Your task to perform on an android device: turn off location history Image 0: 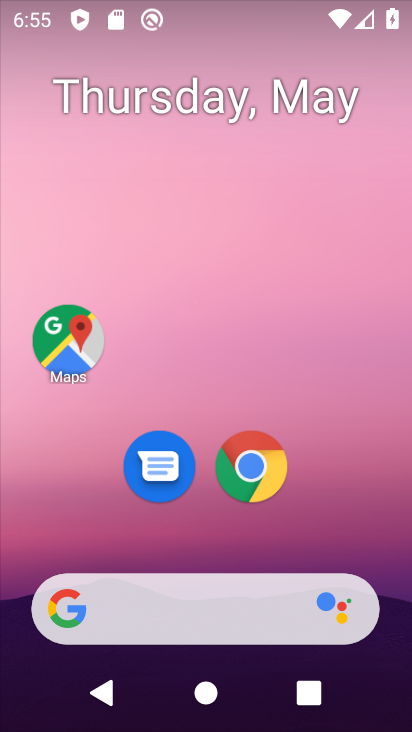
Step 0: click (84, 360)
Your task to perform on an android device: turn off location history Image 1: 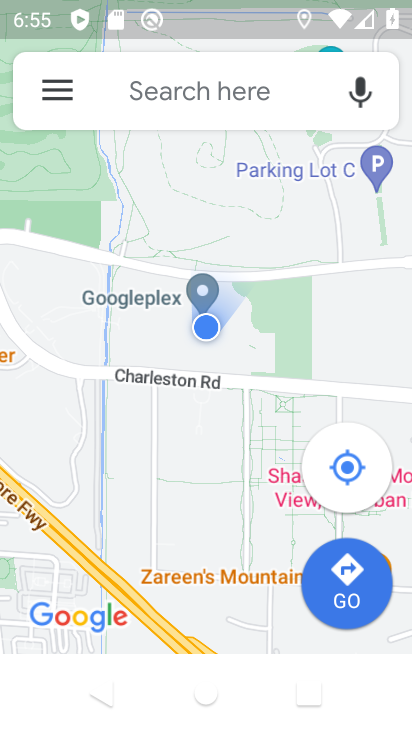
Step 1: click (53, 92)
Your task to perform on an android device: turn off location history Image 2: 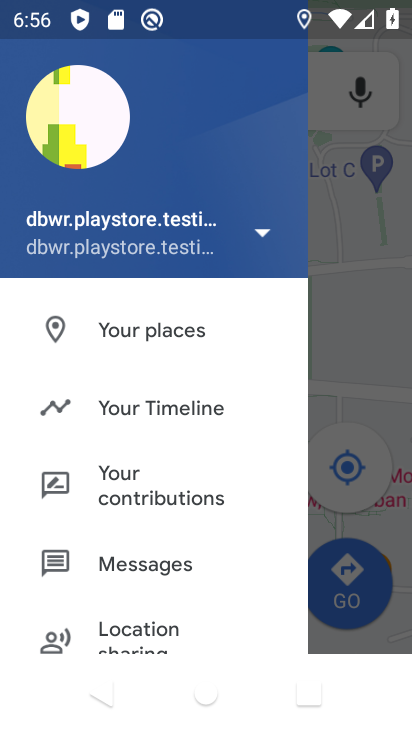
Step 2: click (208, 404)
Your task to perform on an android device: turn off location history Image 3: 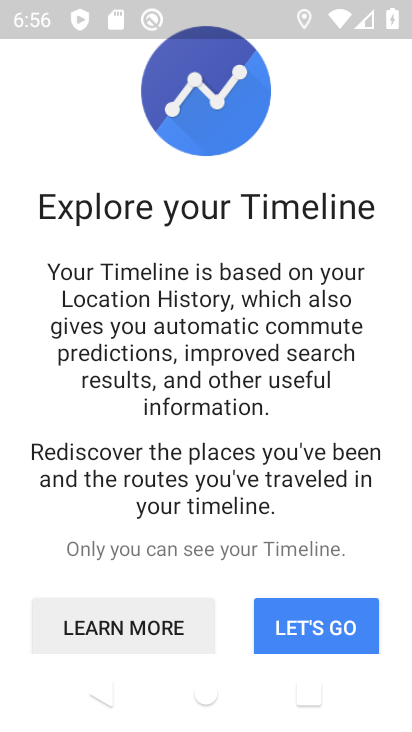
Step 3: drag from (289, 537) to (288, 216)
Your task to perform on an android device: turn off location history Image 4: 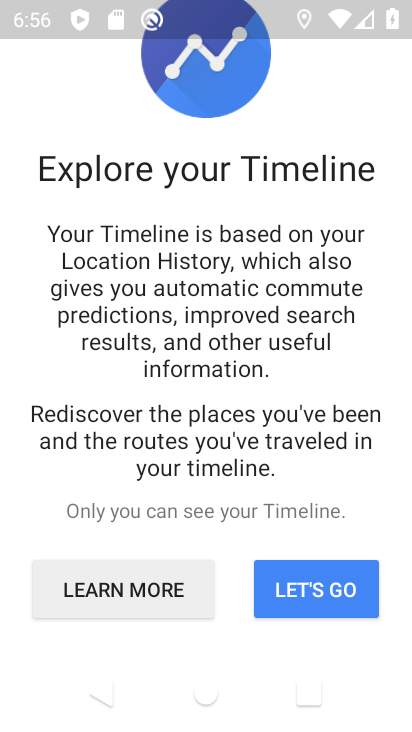
Step 4: click (301, 587)
Your task to perform on an android device: turn off location history Image 5: 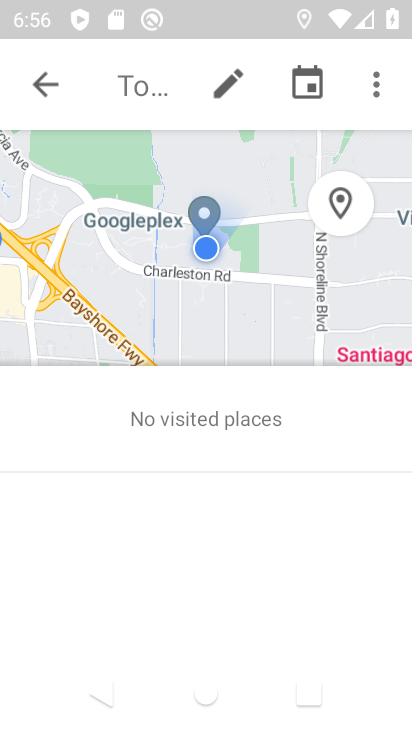
Step 5: click (379, 77)
Your task to perform on an android device: turn off location history Image 6: 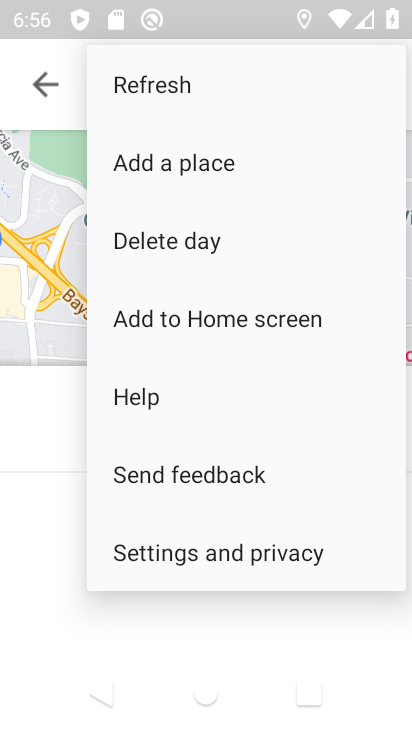
Step 6: click (221, 551)
Your task to perform on an android device: turn off location history Image 7: 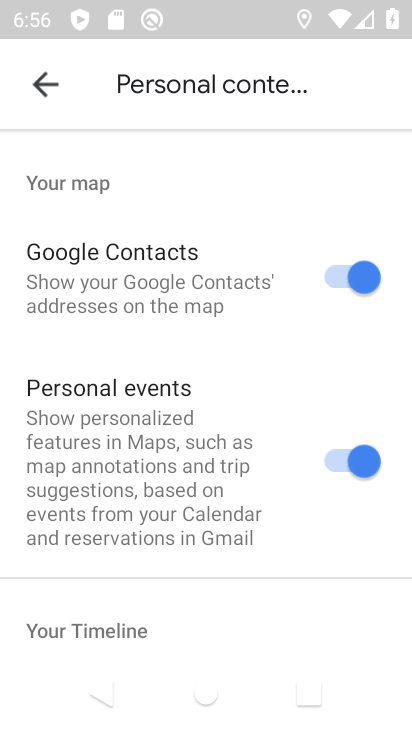
Step 7: drag from (282, 511) to (260, 248)
Your task to perform on an android device: turn off location history Image 8: 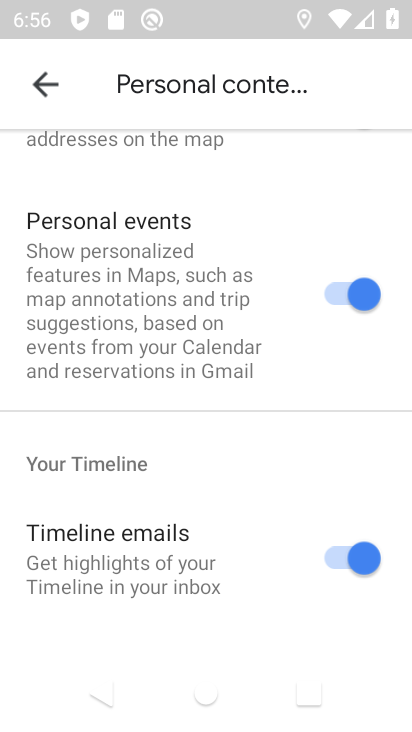
Step 8: drag from (230, 488) to (222, 147)
Your task to perform on an android device: turn off location history Image 9: 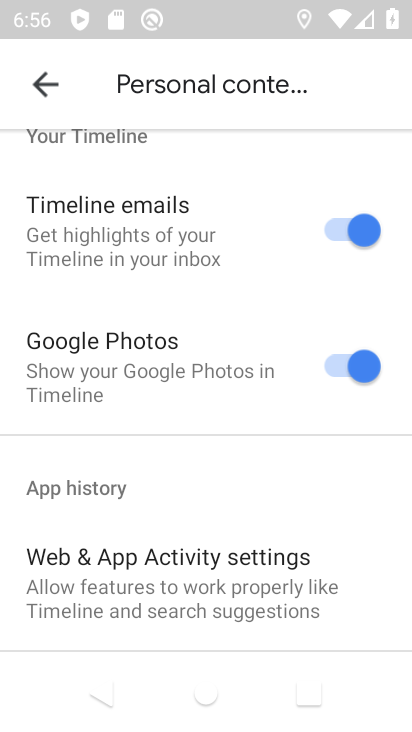
Step 9: drag from (226, 507) to (201, 232)
Your task to perform on an android device: turn off location history Image 10: 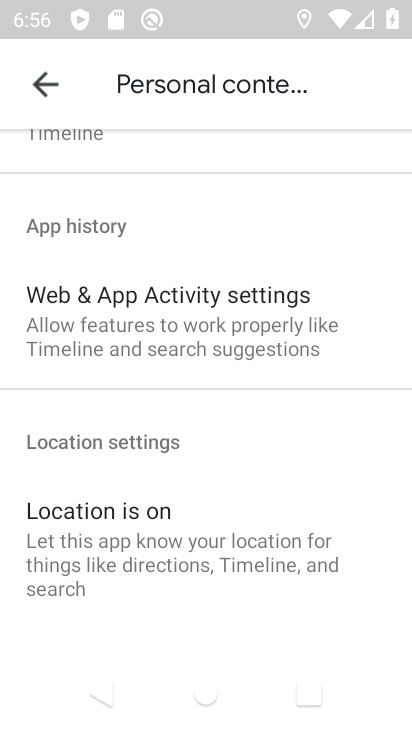
Step 10: drag from (220, 451) to (197, 219)
Your task to perform on an android device: turn off location history Image 11: 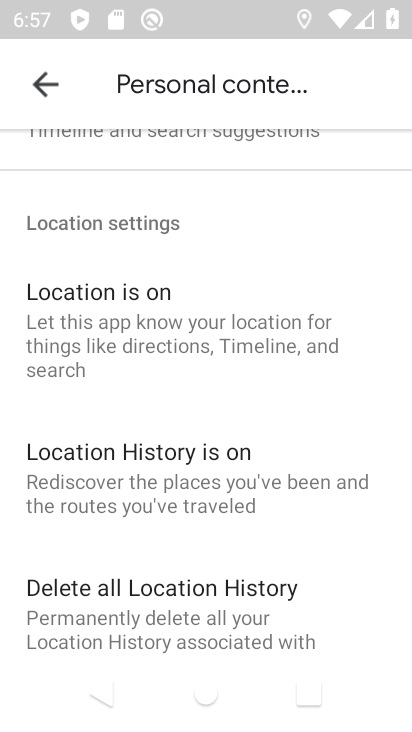
Step 11: click (146, 448)
Your task to perform on an android device: turn off location history Image 12: 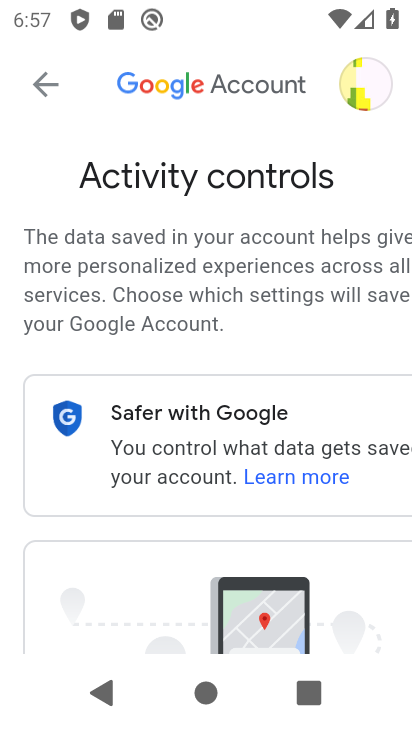
Step 12: drag from (206, 515) to (134, 51)
Your task to perform on an android device: turn off location history Image 13: 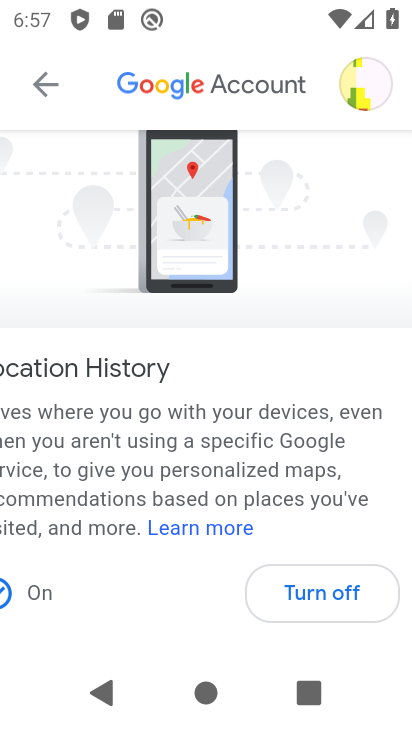
Step 13: click (344, 594)
Your task to perform on an android device: turn off location history Image 14: 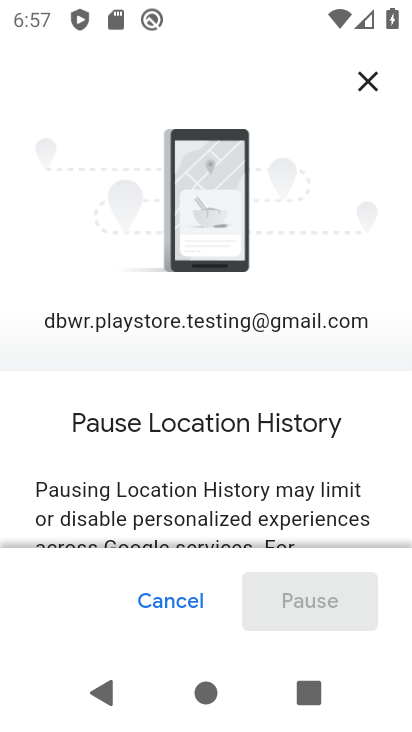
Step 14: drag from (322, 474) to (282, 211)
Your task to perform on an android device: turn off location history Image 15: 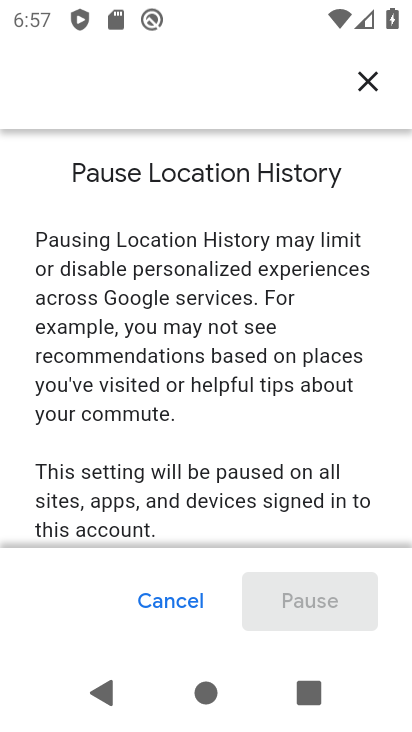
Step 15: drag from (312, 424) to (295, 199)
Your task to perform on an android device: turn off location history Image 16: 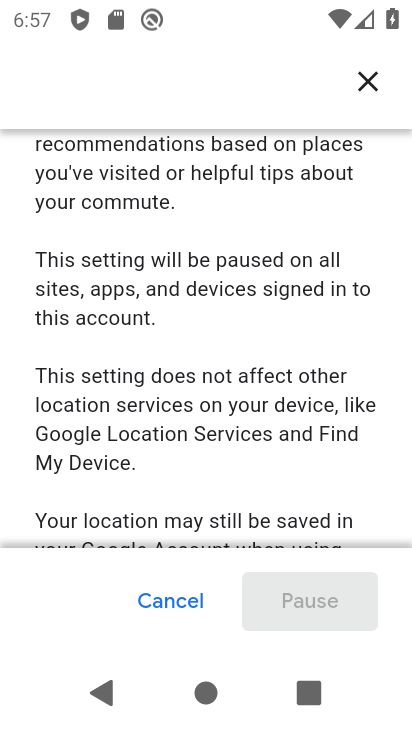
Step 16: drag from (295, 459) to (280, 211)
Your task to perform on an android device: turn off location history Image 17: 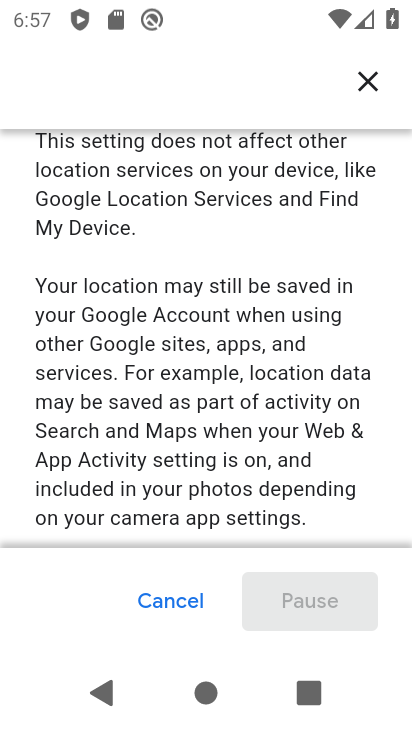
Step 17: drag from (280, 485) to (265, 139)
Your task to perform on an android device: turn off location history Image 18: 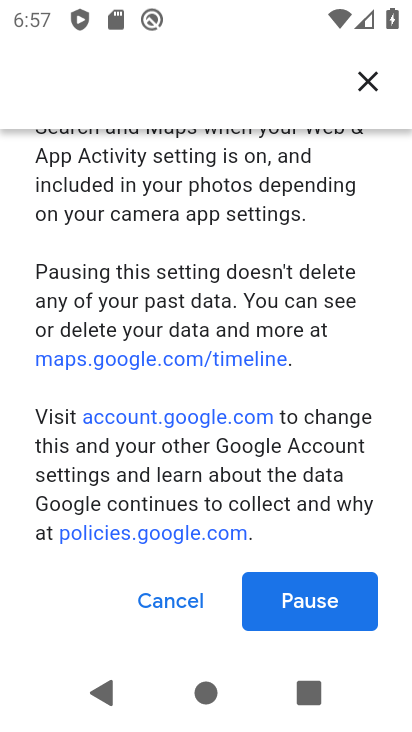
Step 18: click (322, 593)
Your task to perform on an android device: turn off location history Image 19: 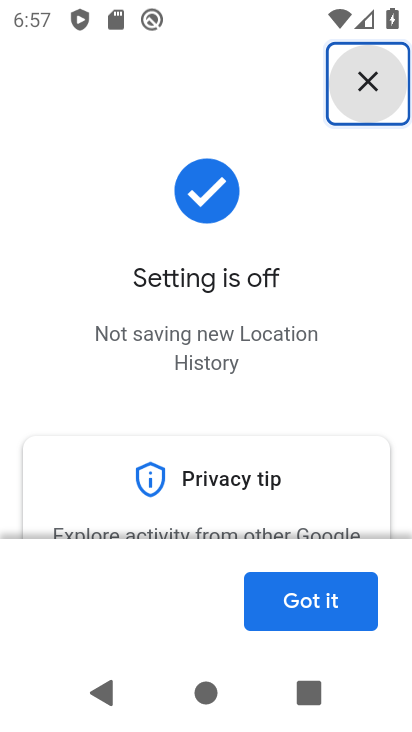
Step 19: click (321, 605)
Your task to perform on an android device: turn off location history Image 20: 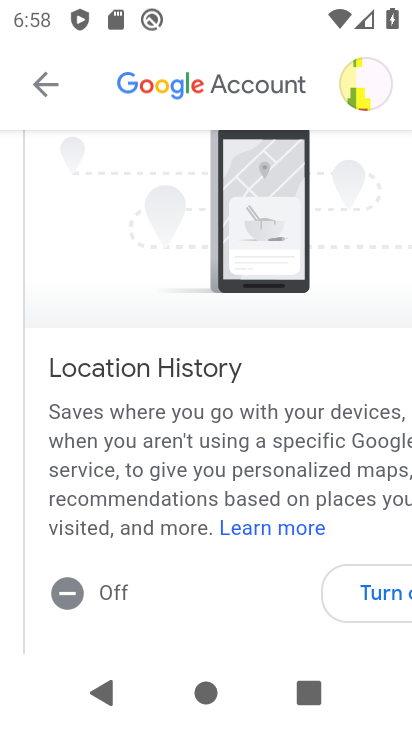
Step 20: task complete